Your task to perform on an android device: Open CNN.com Image 0: 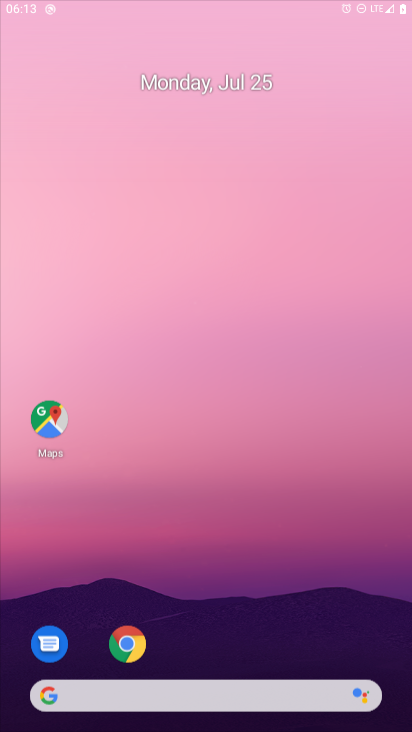
Step 0: press home button
Your task to perform on an android device: Open CNN.com Image 1: 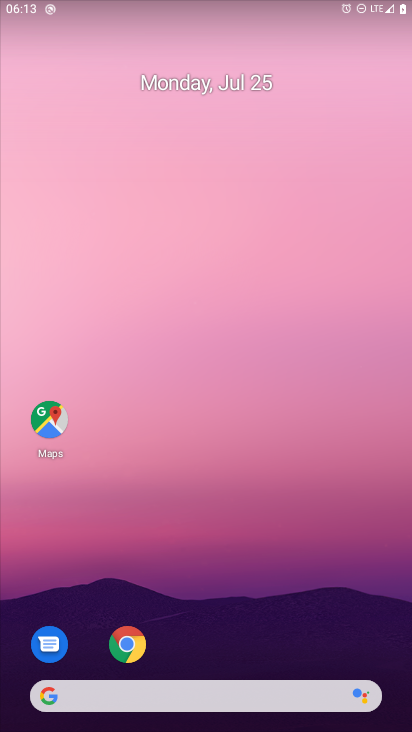
Step 1: click (54, 689)
Your task to perform on an android device: Open CNN.com Image 2: 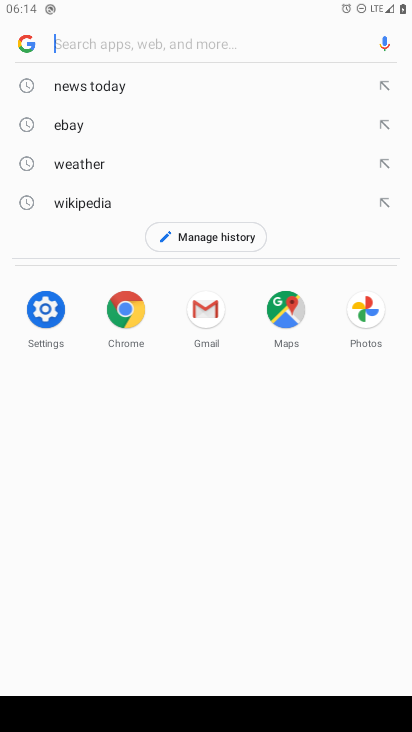
Step 2: type "CNN.com"
Your task to perform on an android device: Open CNN.com Image 3: 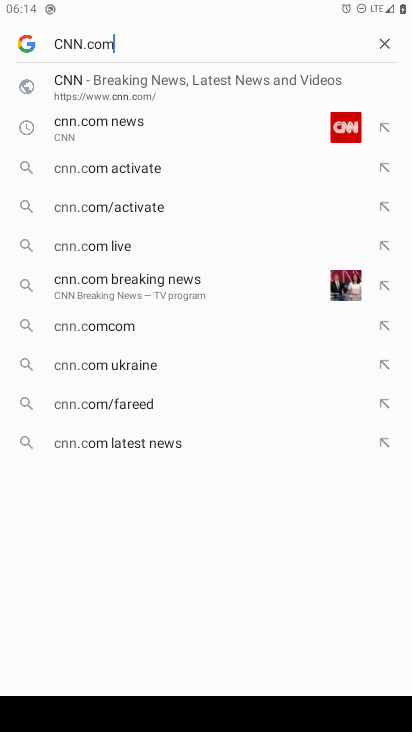
Step 3: press enter
Your task to perform on an android device: Open CNN.com Image 4: 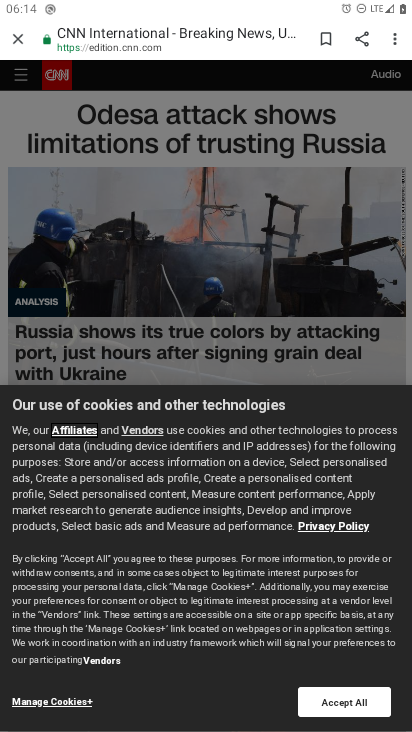
Step 4: task complete